Your task to perform on an android device: change alarm snooze length Image 0: 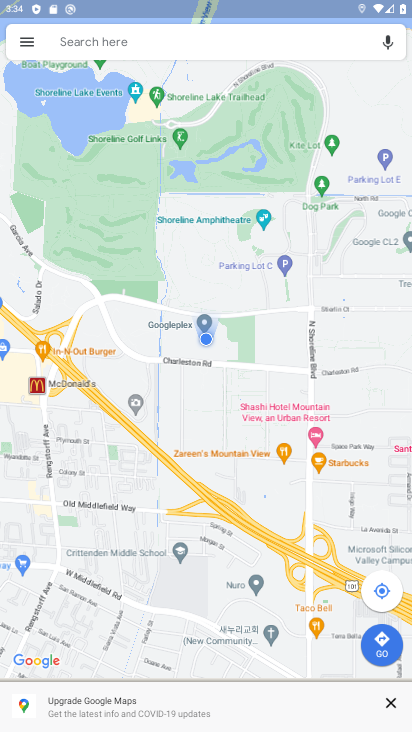
Step 0: press home button
Your task to perform on an android device: change alarm snooze length Image 1: 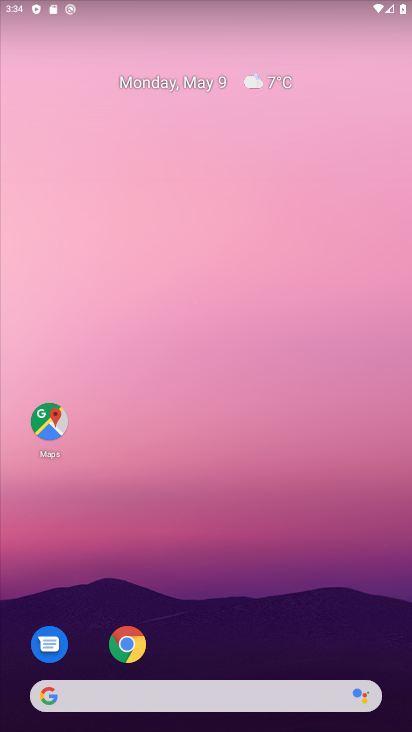
Step 1: drag from (228, 635) to (53, 1)
Your task to perform on an android device: change alarm snooze length Image 2: 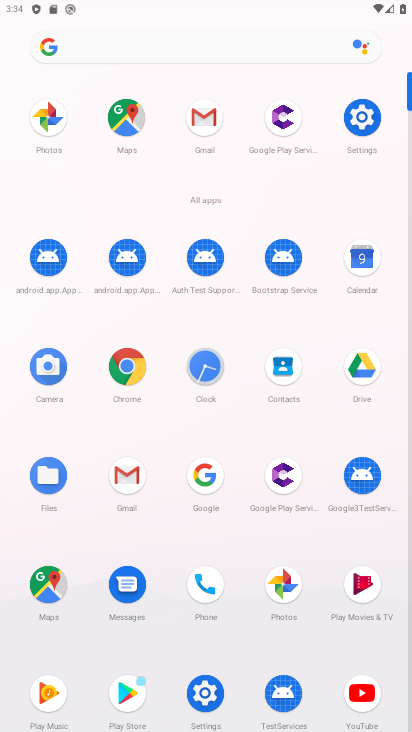
Step 2: click (198, 366)
Your task to perform on an android device: change alarm snooze length Image 3: 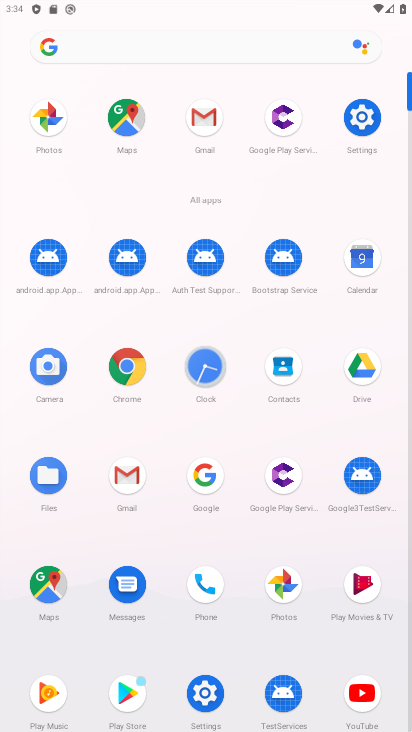
Step 3: click (198, 366)
Your task to perform on an android device: change alarm snooze length Image 4: 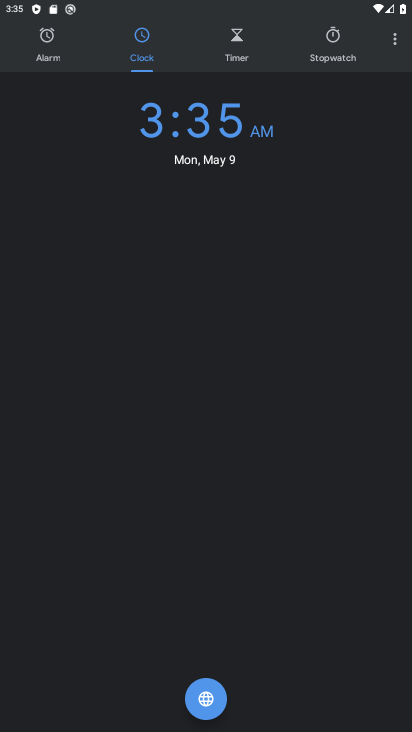
Step 4: click (389, 35)
Your task to perform on an android device: change alarm snooze length Image 5: 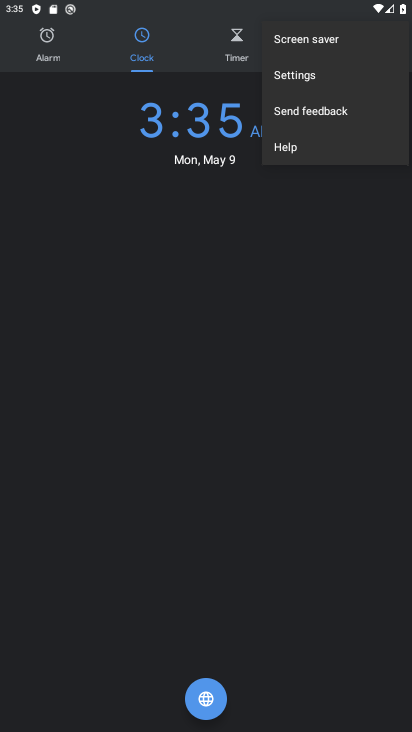
Step 5: click (285, 74)
Your task to perform on an android device: change alarm snooze length Image 6: 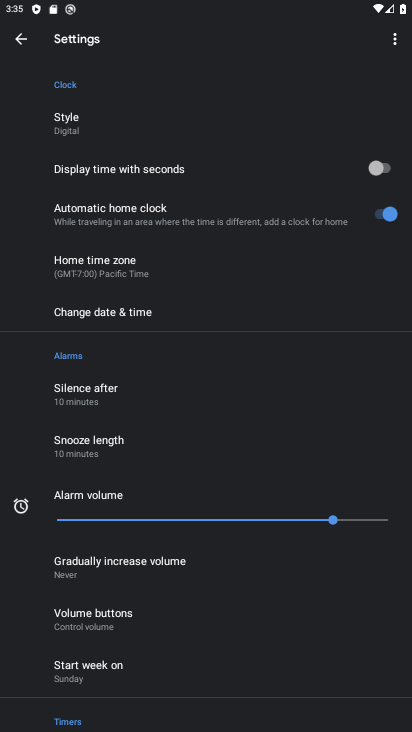
Step 6: click (94, 446)
Your task to perform on an android device: change alarm snooze length Image 7: 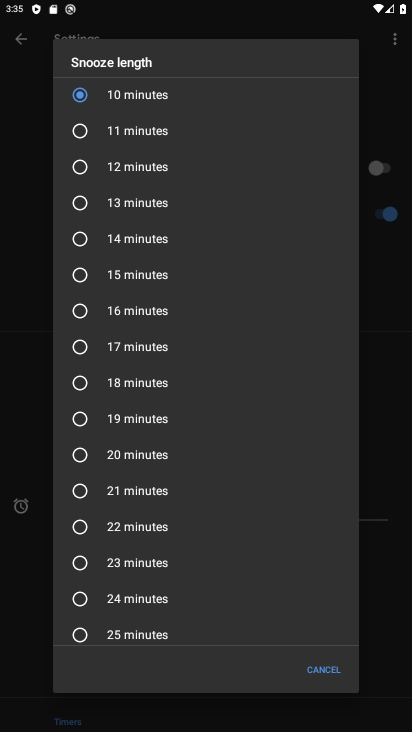
Step 7: click (82, 384)
Your task to perform on an android device: change alarm snooze length Image 8: 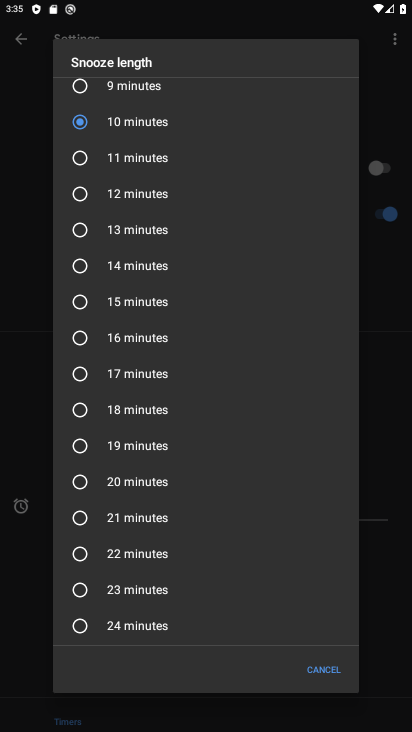
Step 8: click (75, 417)
Your task to perform on an android device: change alarm snooze length Image 9: 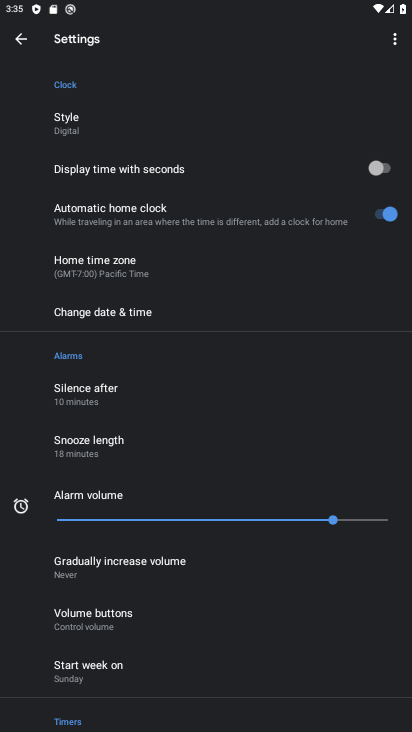
Step 9: task complete